Your task to perform on an android device: What's the weather going to be tomorrow? Image 0: 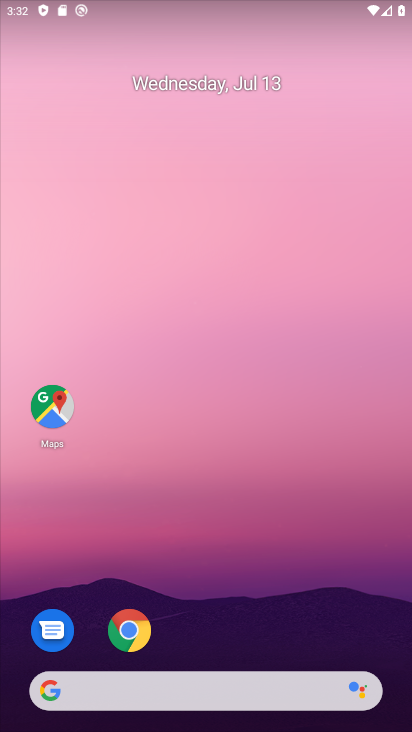
Step 0: drag from (271, 525) to (341, 157)
Your task to perform on an android device: What's the weather going to be tomorrow? Image 1: 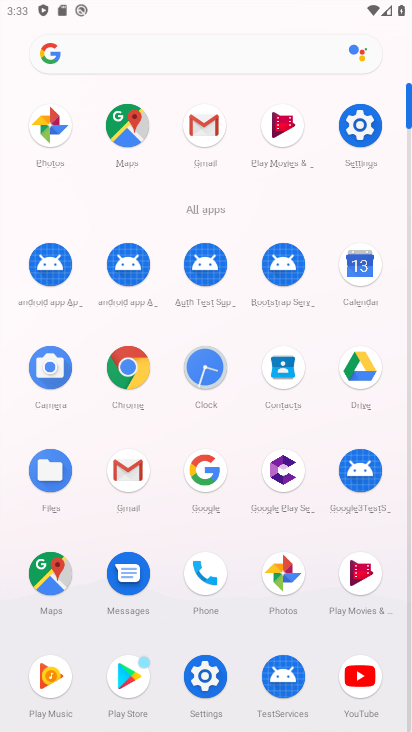
Step 1: click (206, 478)
Your task to perform on an android device: What's the weather going to be tomorrow? Image 2: 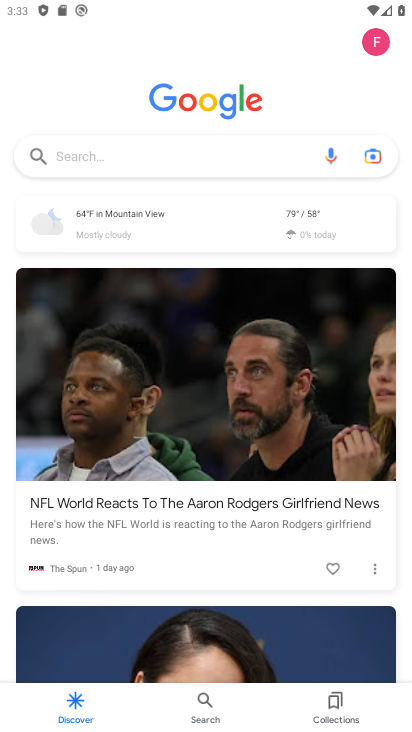
Step 2: click (151, 214)
Your task to perform on an android device: What's the weather going to be tomorrow? Image 3: 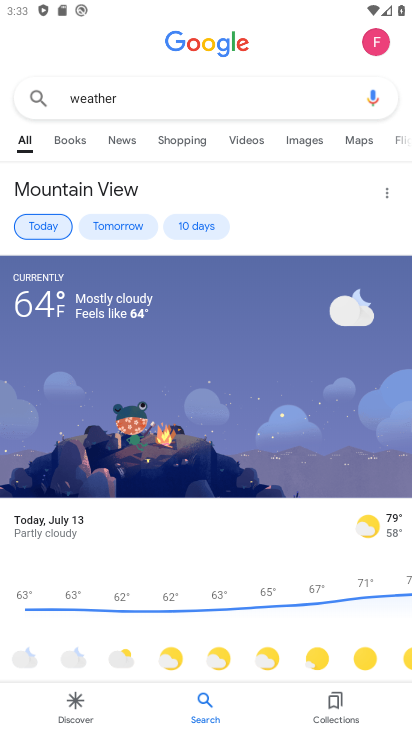
Step 3: task complete